Your task to perform on an android device: add a contact in the contacts app Image 0: 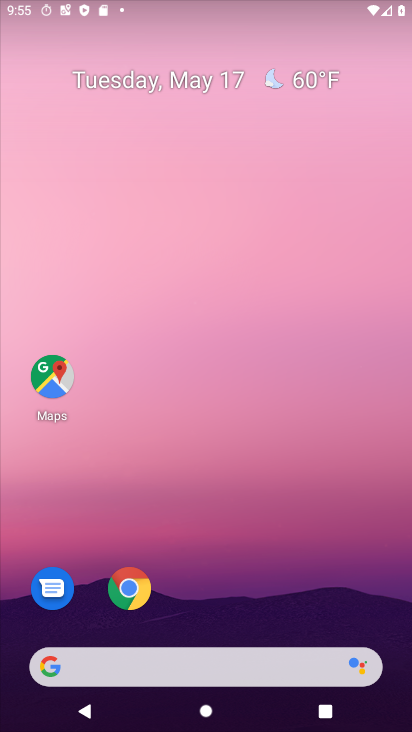
Step 0: drag from (398, 693) to (196, 37)
Your task to perform on an android device: add a contact in the contacts app Image 1: 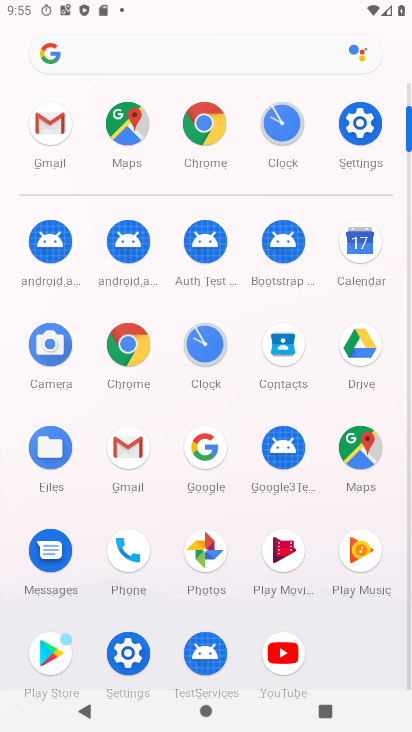
Step 1: click (285, 349)
Your task to perform on an android device: add a contact in the contacts app Image 2: 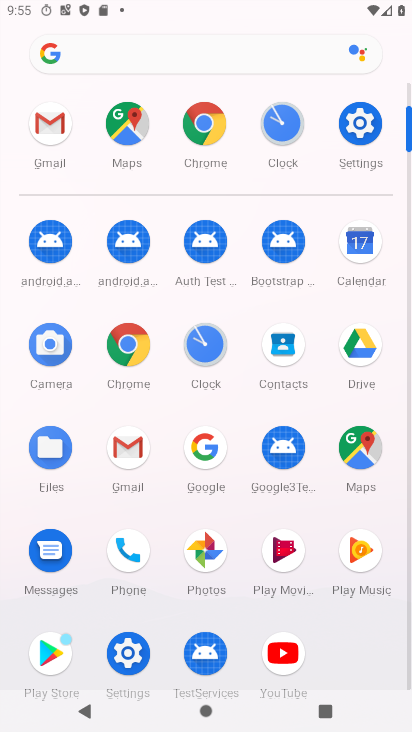
Step 2: click (286, 346)
Your task to perform on an android device: add a contact in the contacts app Image 3: 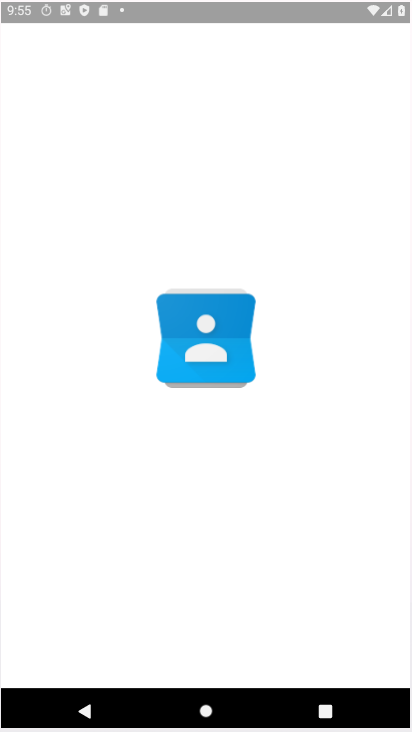
Step 3: click (283, 344)
Your task to perform on an android device: add a contact in the contacts app Image 4: 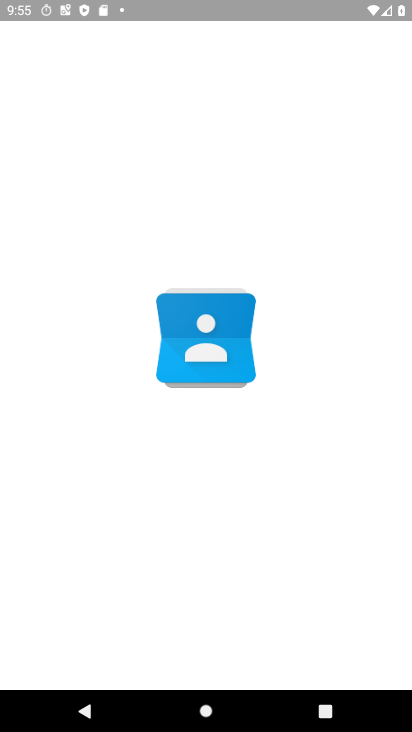
Step 4: drag from (304, 342) to (237, 334)
Your task to perform on an android device: add a contact in the contacts app Image 5: 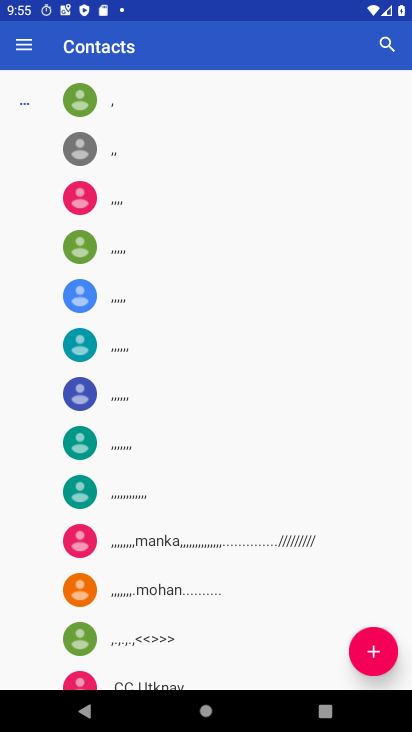
Step 5: drag from (289, 324) to (253, 306)
Your task to perform on an android device: add a contact in the contacts app Image 6: 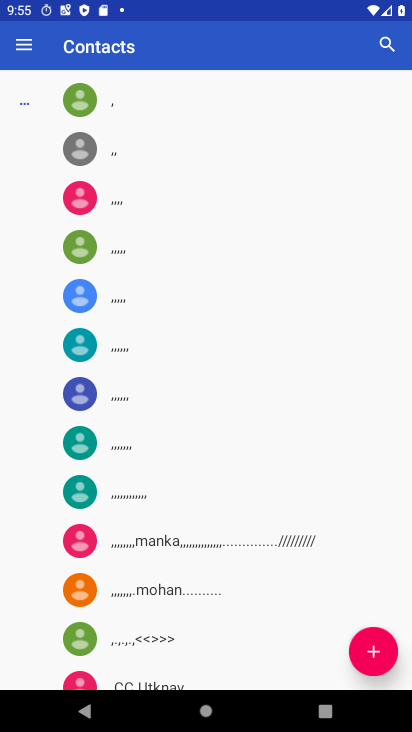
Step 6: drag from (411, 665) to (365, 624)
Your task to perform on an android device: add a contact in the contacts app Image 7: 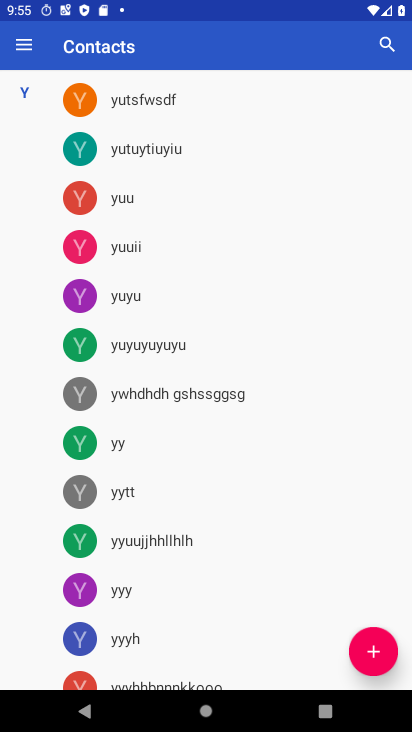
Step 7: click (378, 634)
Your task to perform on an android device: add a contact in the contacts app Image 8: 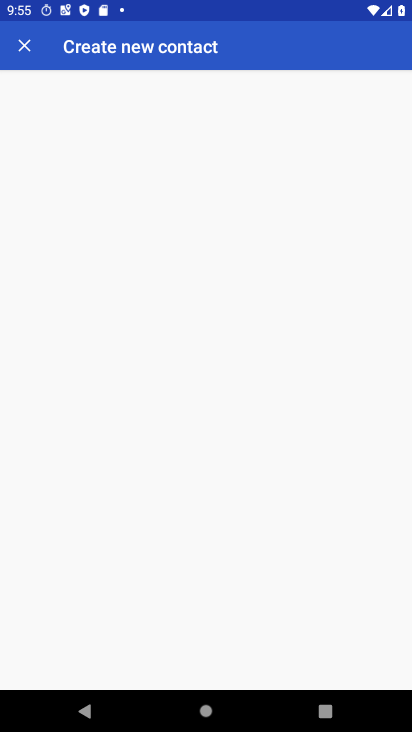
Step 8: click (374, 638)
Your task to perform on an android device: add a contact in the contacts app Image 9: 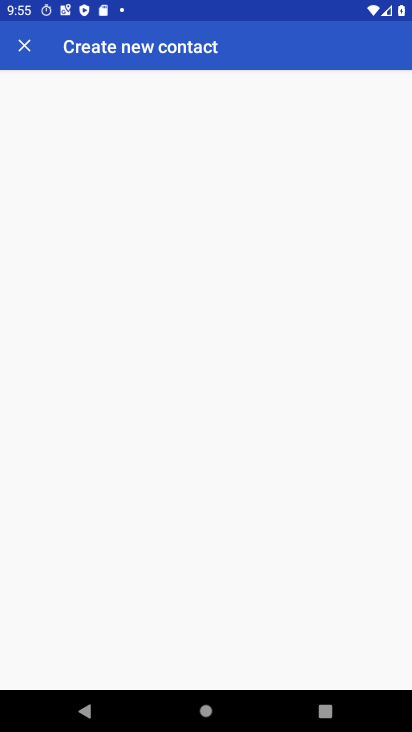
Step 9: click (381, 613)
Your task to perform on an android device: add a contact in the contacts app Image 10: 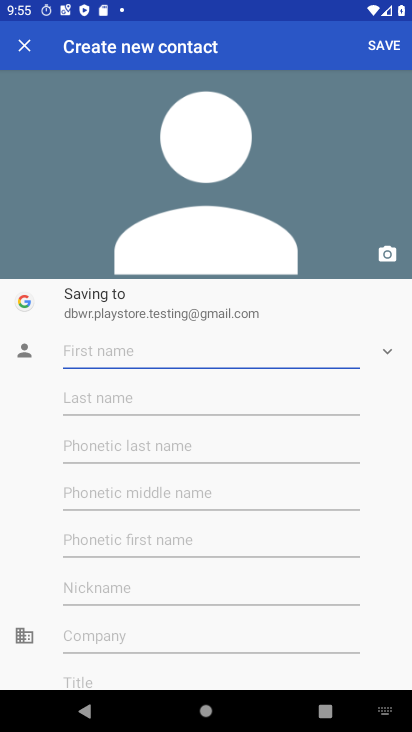
Step 10: click (363, 652)
Your task to perform on an android device: add a contact in the contacts app Image 11: 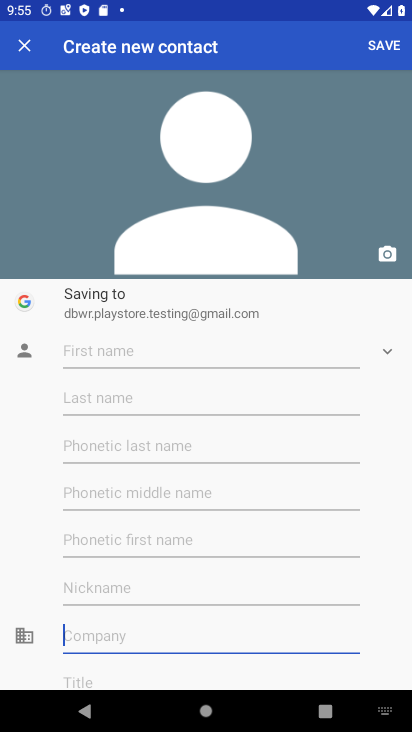
Step 11: click (69, 349)
Your task to perform on an android device: add a contact in the contacts app Image 12: 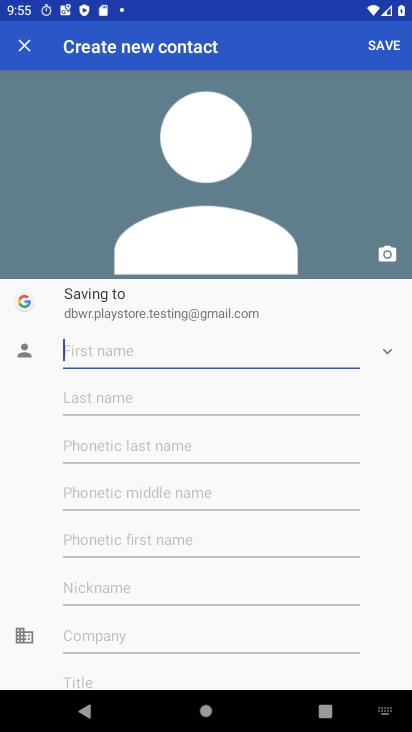
Step 12: click (72, 354)
Your task to perform on an android device: add a contact in the contacts app Image 13: 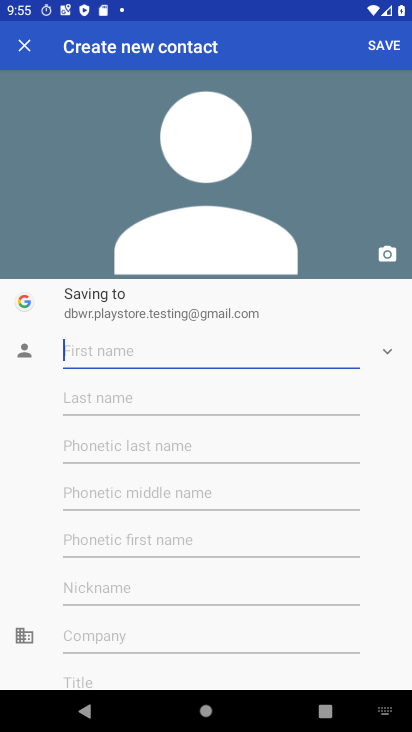
Step 13: click (74, 331)
Your task to perform on an android device: add a contact in the contacts app Image 14: 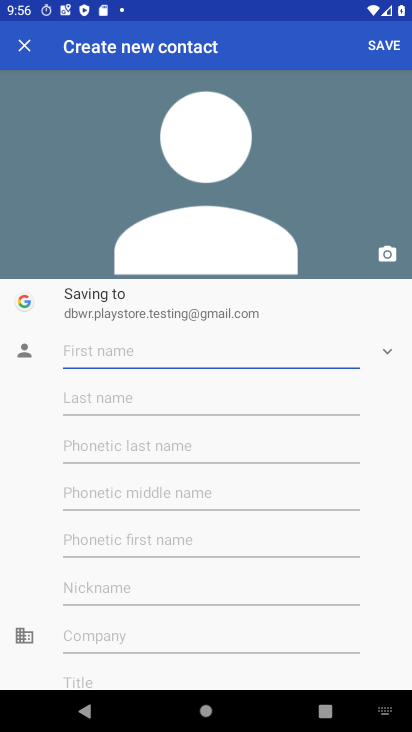
Step 14: click (91, 341)
Your task to perform on an android device: add a contact in the contacts app Image 15: 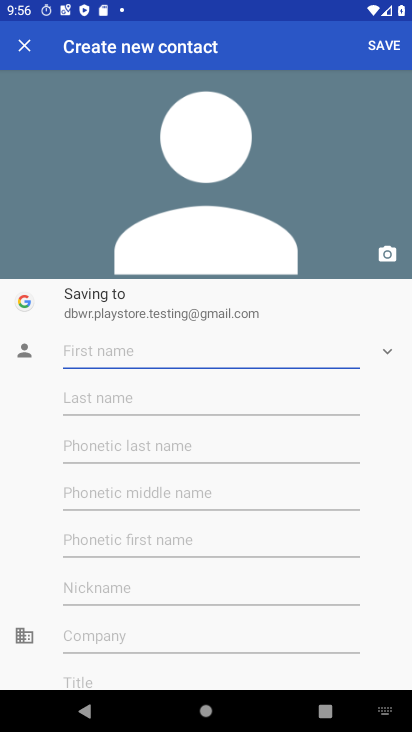
Step 15: click (81, 340)
Your task to perform on an android device: add a contact in the contacts app Image 16: 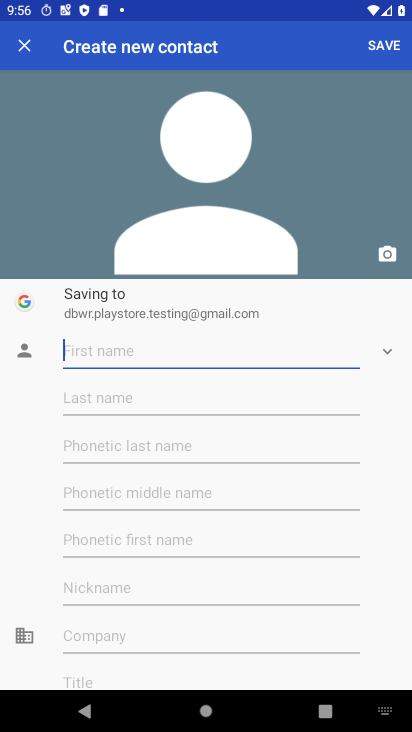
Step 16: type "bccnjxzbjhdbch"
Your task to perform on an android device: add a contact in the contacts app Image 17: 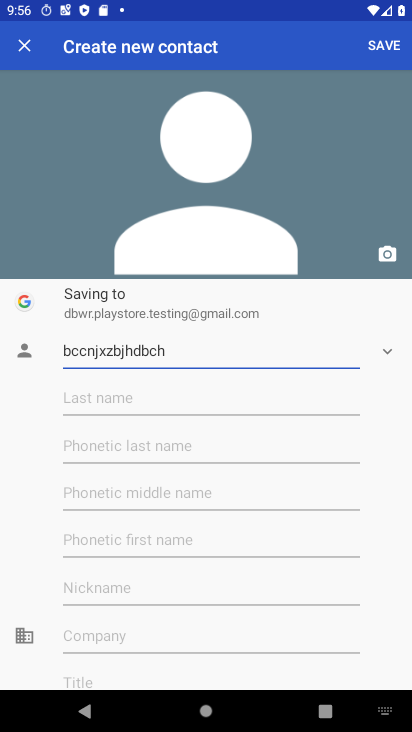
Step 17: click (80, 448)
Your task to perform on an android device: add a contact in the contacts app Image 18: 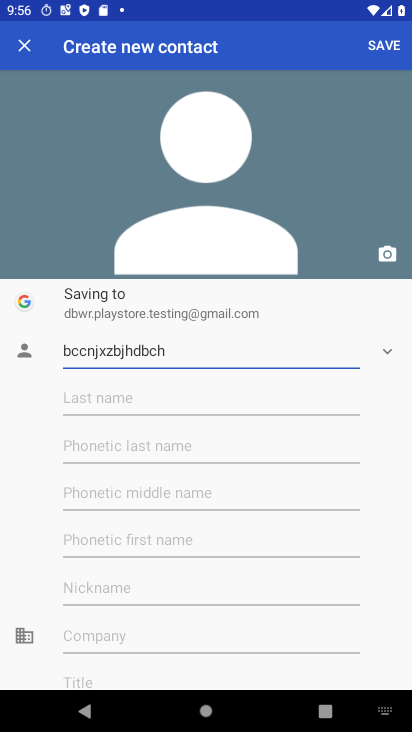
Step 18: click (80, 448)
Your task to perform on an android device: add a contact in the contacts app Image 19: 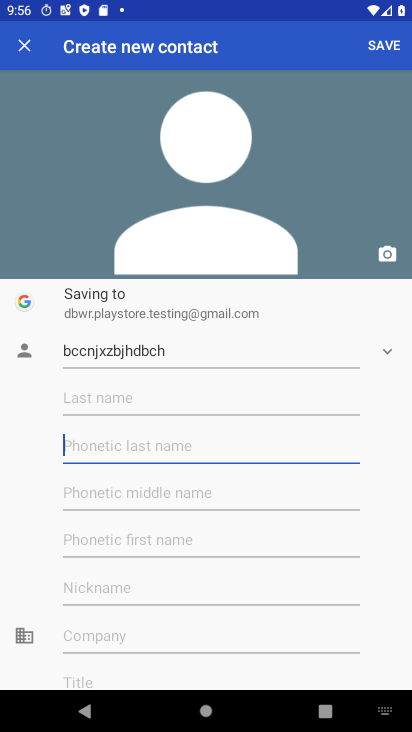
Step 19: click (80, 448)
Your task to perform on an android device: add a contact in the contacts app Image 20: 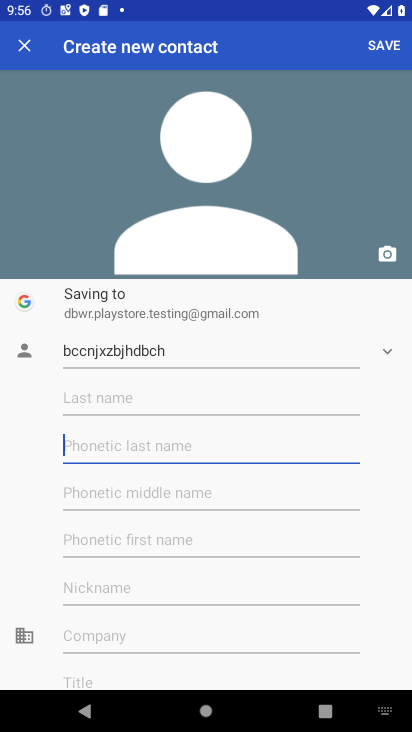
Step 20: click (80, 448)
Your task to perform on an android device: add a contact in the contacts app Image 21: 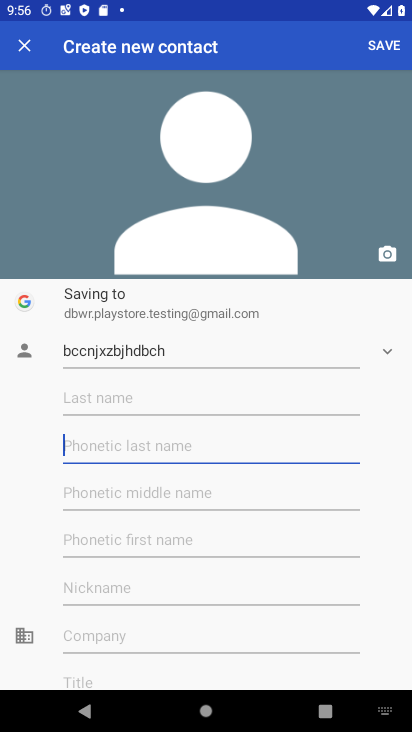
Step 21: type "7678683275928223"
Your task to perform on an android device: add a contact in the contacts app Image 22: 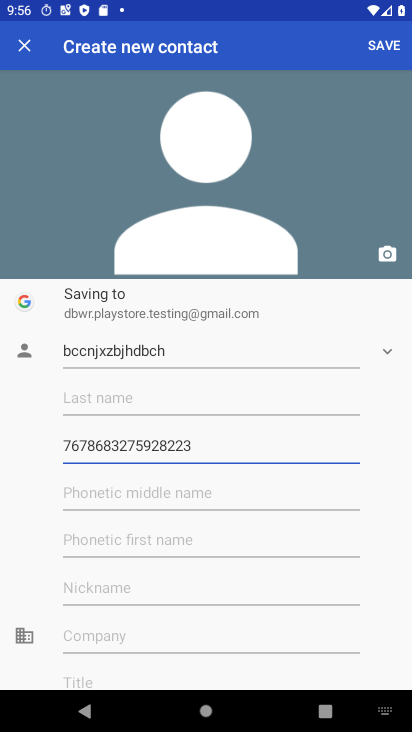
Step 22: click (393, 42)
Your task to perform on an android device: add a contact in the contacts app Image 23: 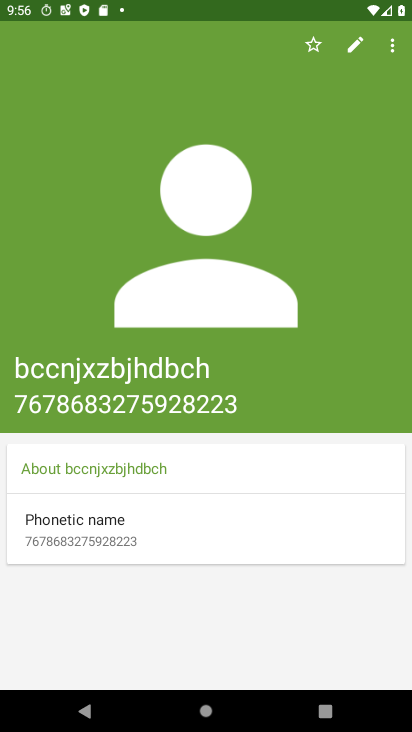
Step 23: task complete